Your task to perform on an android device: Open Android settings Image 0: 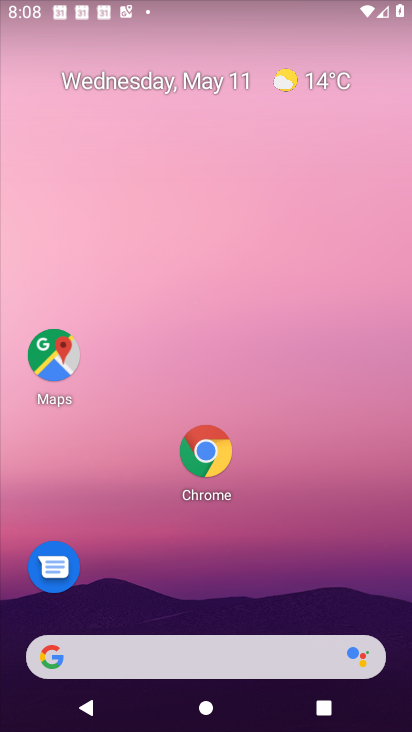
Step 0: drag from (128, 657) to (293, 136)
Your task to perform on an android device: Open Android settings Image 1: 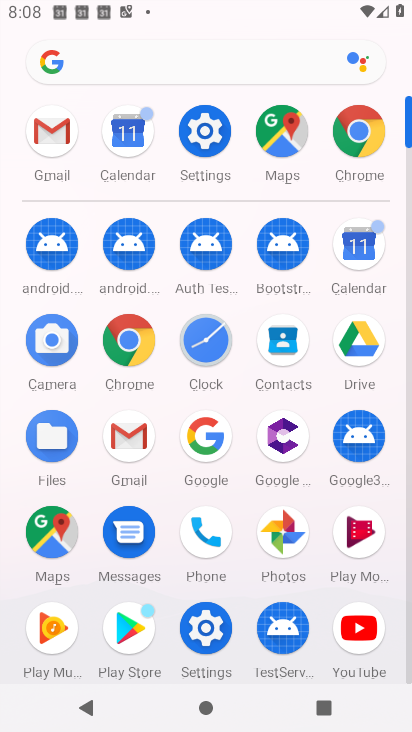
Step 1: click (202, 133)
Your task to perform on an android device: Open Android settings Image 2: 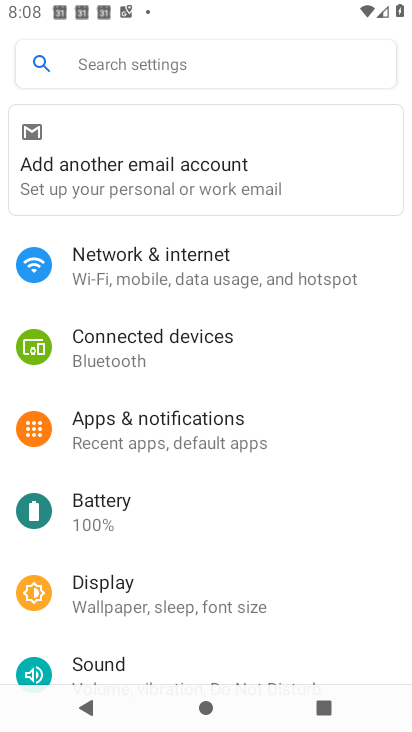
Step 2: drag from (230, 667) to (344, 119)
Your task to perform on an android device: Open Android settings Image 3: 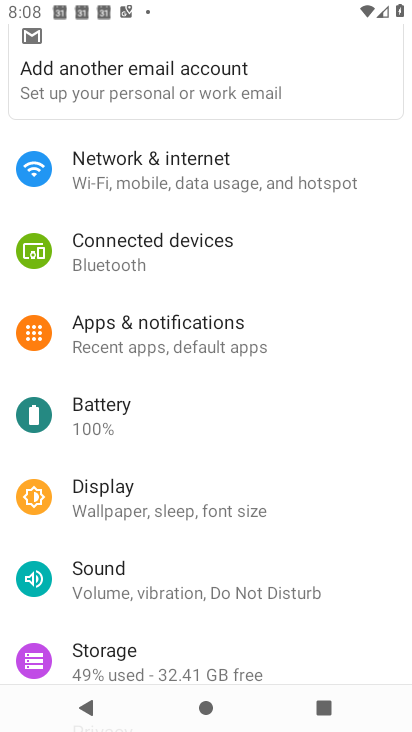
Step 3: drag from (227, 632) to (398, 65)
Your task to perform on an android device: Open Android settings Image 4: 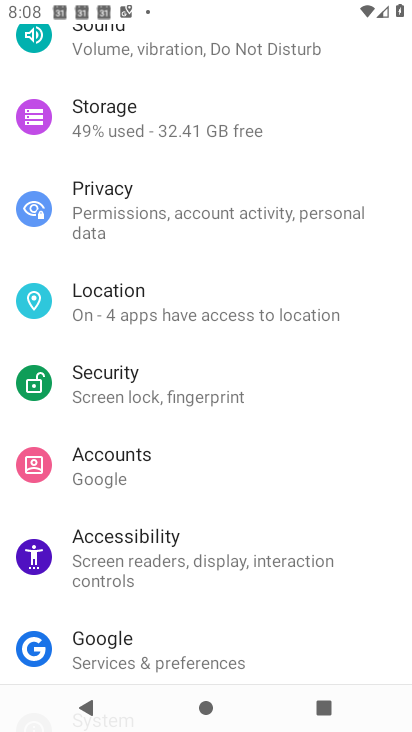
Step 4: drag from (181, 633) to (386, 92)
Your task to perform on an android device: Open Android settings Image 5: 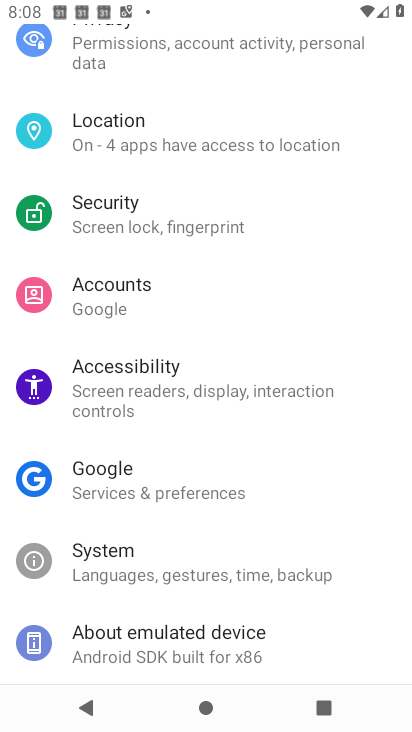
Step 5: click (181, 635)
Your task to perform on an android device: Open Android settings Image 6: 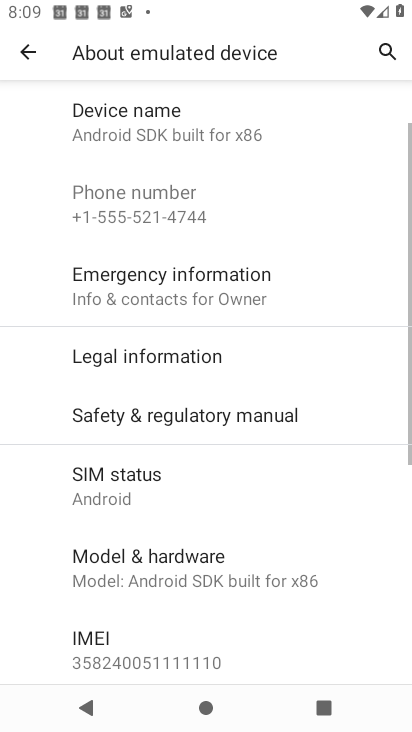
Step 6: task complete